Your task to perform on an android device: clear all cookies in the chrome app Image 0: 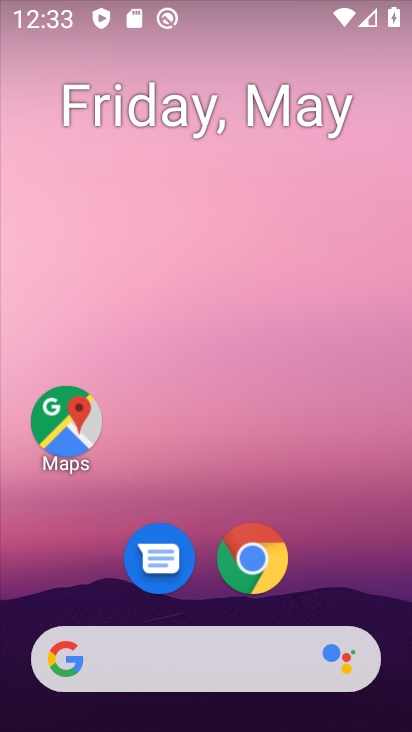
Step 0: click (272, 565)
Your task to perform on an android device: clear all cookies in the chrome app Image 1: 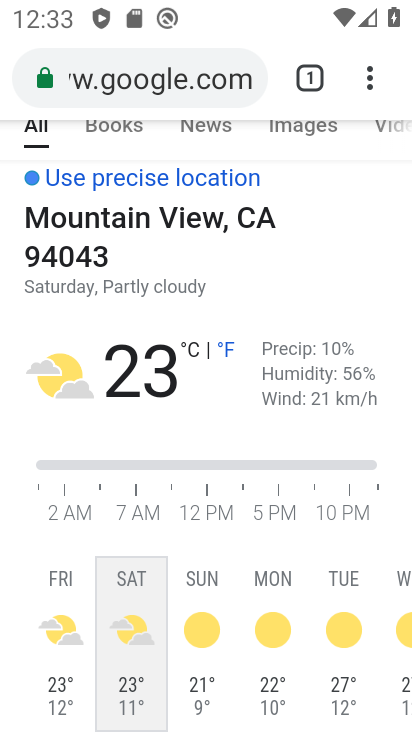
Step 1: click (366, 79)
Your task to perform on an android device: clear all cookies in the chrome app Image 2: 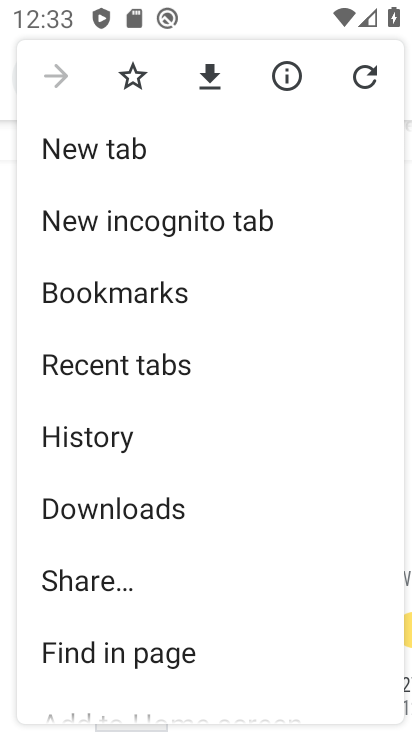
Step 2: click (128, 442)
Your task to perform on an android device: clear all cookies in the chrome app Image 3: 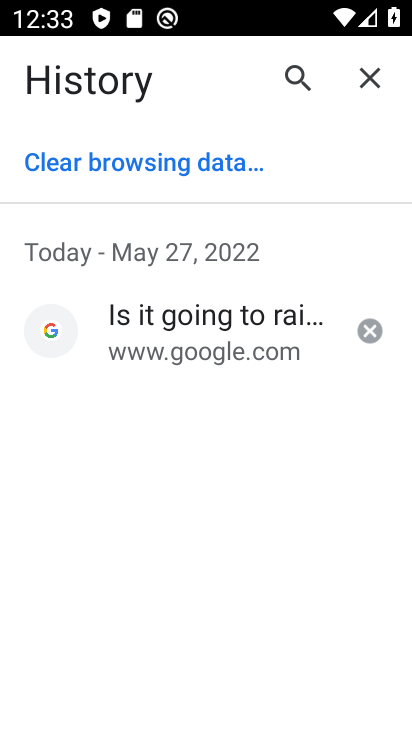
Step 3: click (158, 158)
Your task to perform on an android device: clear all cookies in the chrome app Image 4: 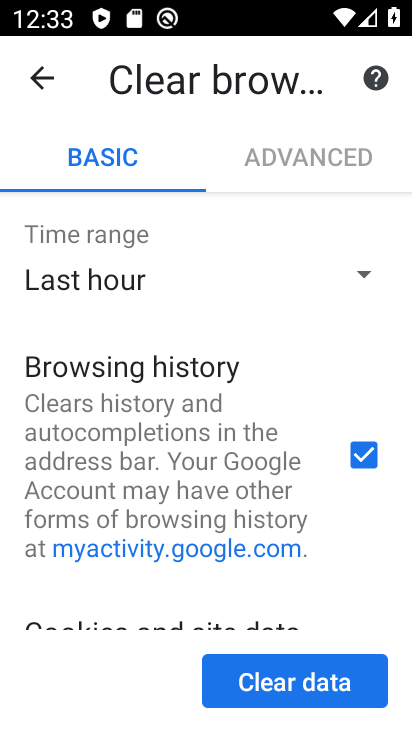
Step 4: click (362, 452)
Your task to perform on an android device: clear all cookies in the chrome app Image 5: 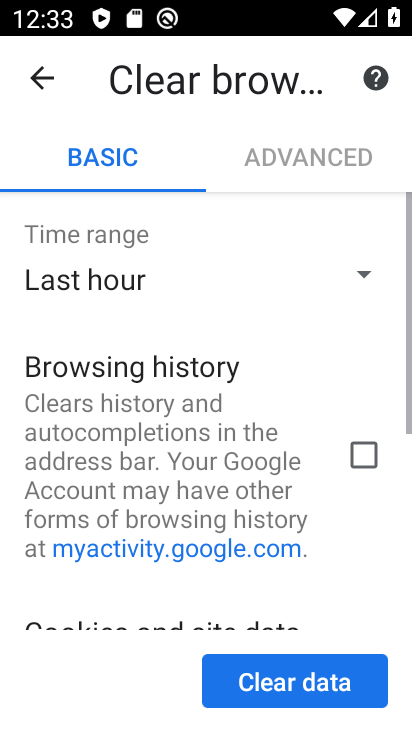
Step 5: drag from (332, 584) to (286, 329)
Your task to perform on an android device: clear all cookies in the chrome app Image 6: 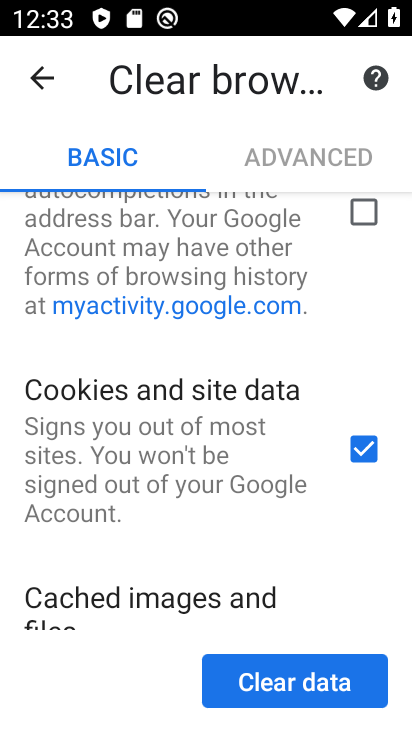
Step 6: click (365, 676)
Your task to perform on an android device: clear all cookies in the chrome app Image 7: 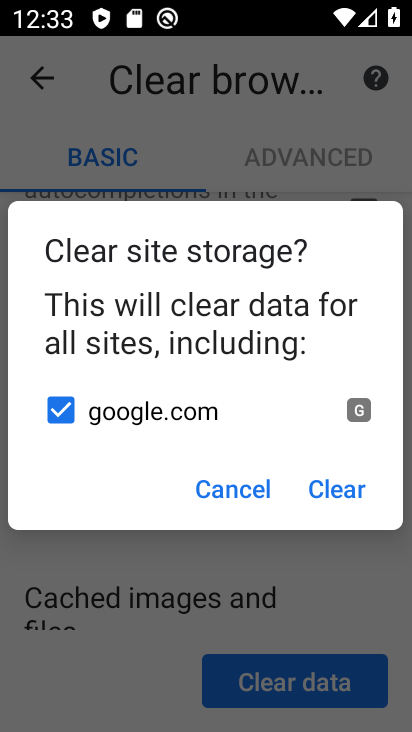
Step 7: click (350, 473)
Your task to perform on an android device: clear all cookies in the chrome app Image 8: 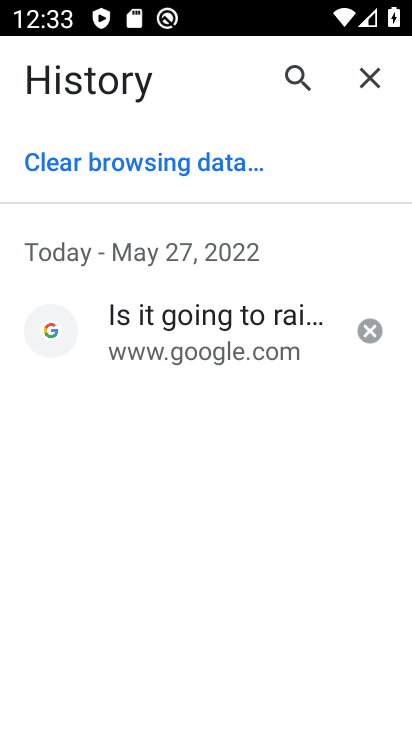
Step 8: task complete